Your task to perform on an android device: turn on priority inbox in the gmail app Image 0: 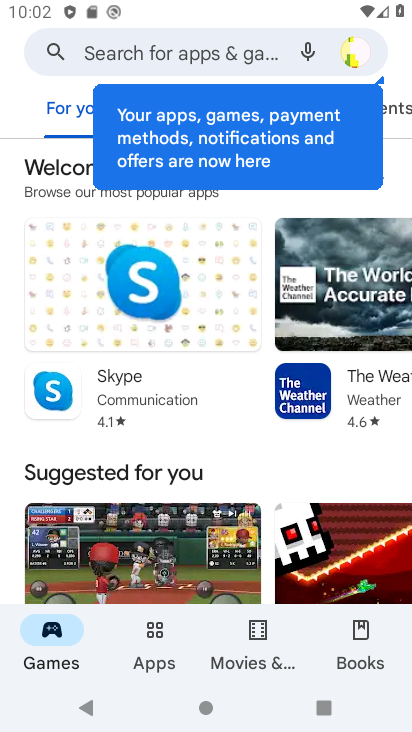
Step 0: press home button
Your task to perform on an android device: turn on priority inbox in the gmail app Image 1: 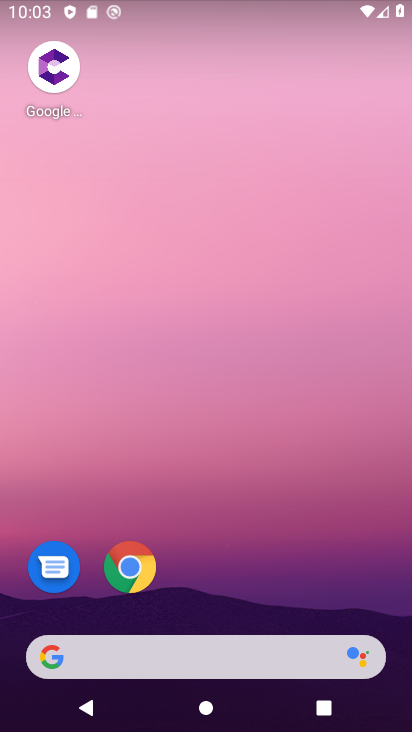
Step 1: click (347, 353)
Your task to perform on an android device: turn on priority inbox in the gmail app Image 2: 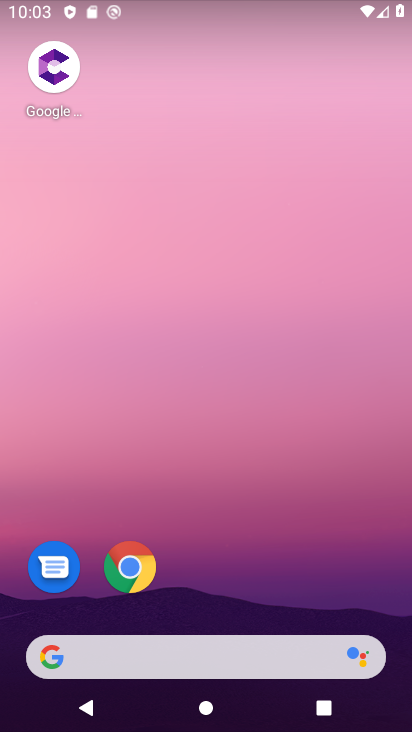
Step 2: drag from (393, 678) to (381, 222)
Your task to perform on an android device: turn on priority inbox in the gmail app Image 3: 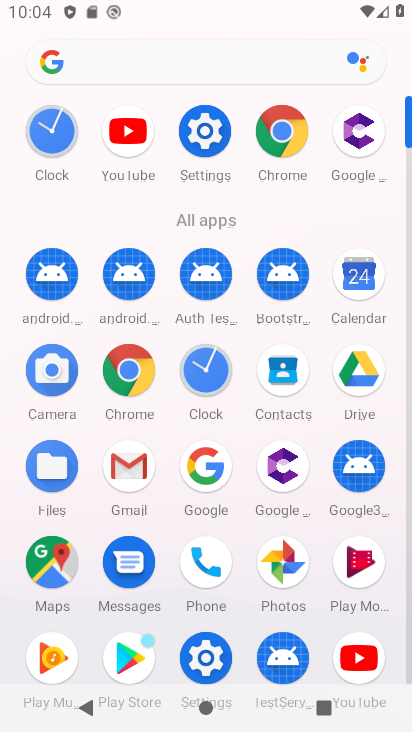
Step 3: click (137, 466)
Your task to perform on an android device: turn on priority inbox in the gmail app Image 4: 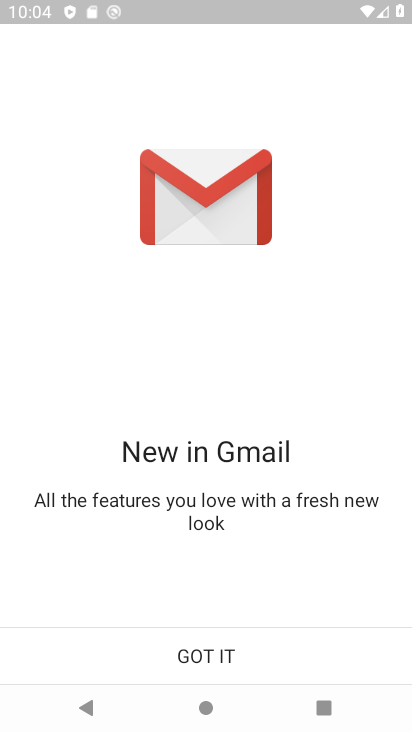
Step 4: click (190, 653)
Your task to perform on an android device: turn on priority inbox in the gmail app Image 5: 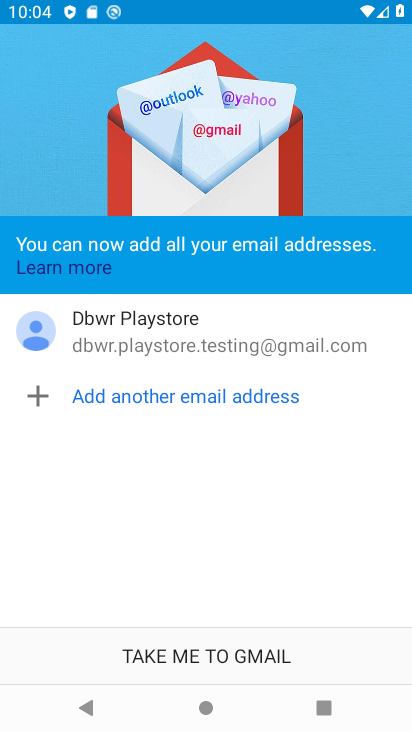
Step 5: click (190, 650)
Your task to perform on an android device: turn on priority inbox in the gmail app Image 6: 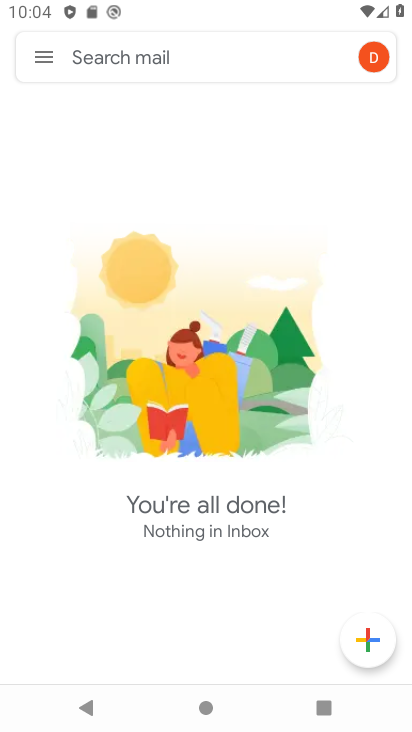
Step 6: click (48, 57)
Your task to perform on an android device: turn on priority inbox in the gmail app Image 7: 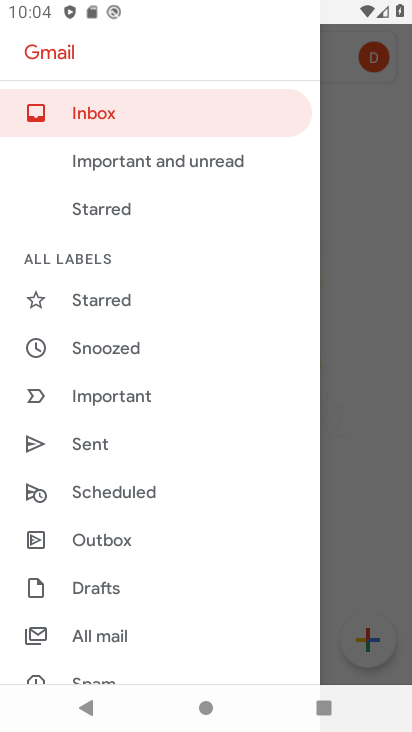
Step 7: drag from (239, 647) to (230, 286)
Your task to perform on an android device: turn on priority inbox in the gmail app Image 8: 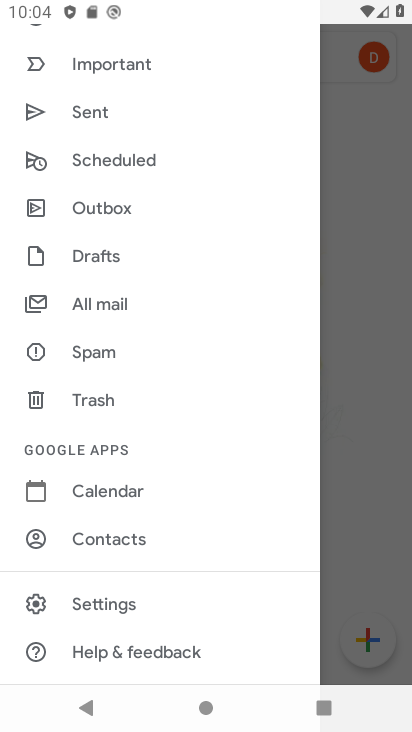
Step 8: click (106, 598)
Your task to perform on an android device: turn on priority inbox in the gmail app Image 9: 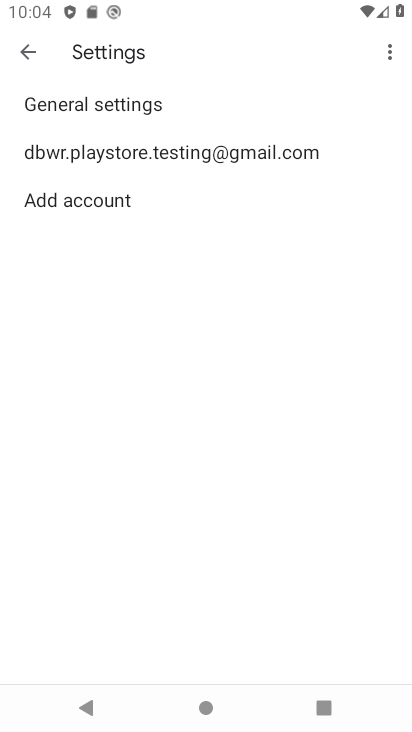
Step 9: click (83, 154)
Your task to perform on an android device: turn on priority inbox in the gmail app Image 10: 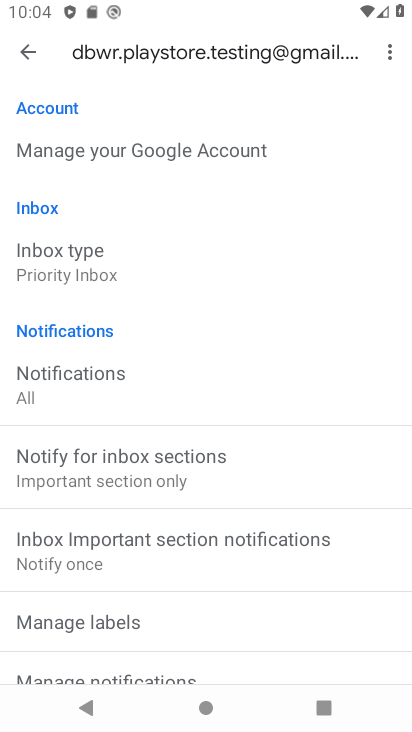
Step 10: click (79, 269)
Your task to perform on an android device: turn on priority inbox in the gmail app Image 11: 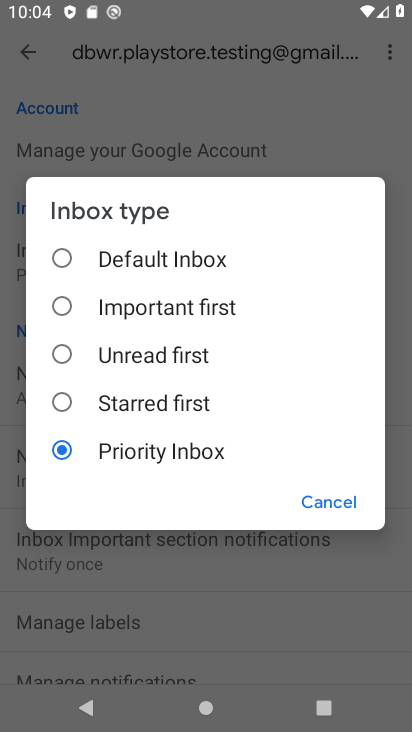
Step 11: task complete